Your task to perform on an android device: Do I have any events today? Image 0: 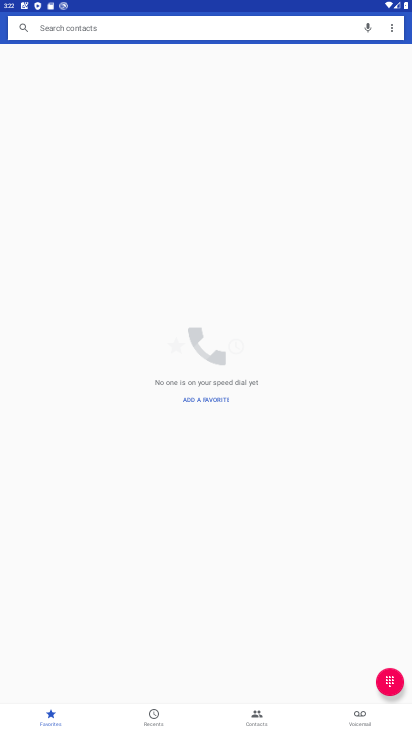
Step 0: press home button
Your task to perform on an android device: Do I have any events today? Image 1: 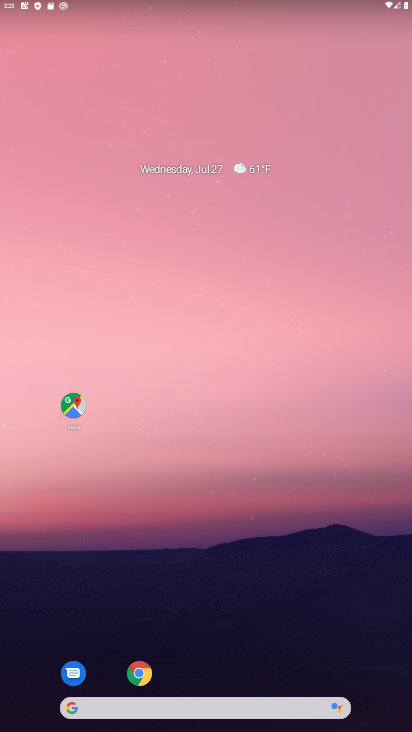
Step 1: drag from (216, 557) to (162, 110)
Your task to perform on an android device: Do I have any events today? Image 2: 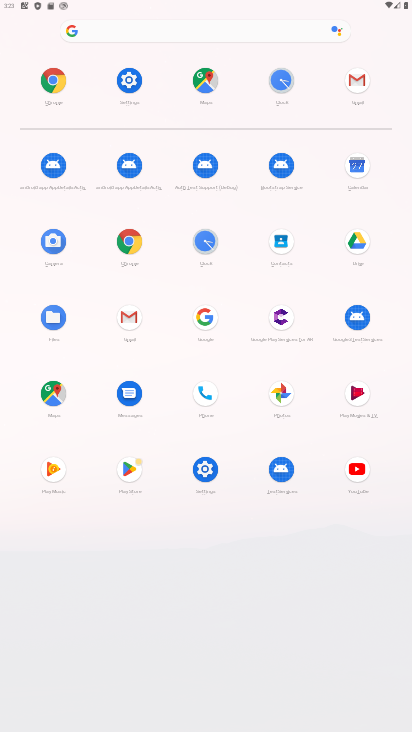
Step 2: click (352, 172)
Your task to perform on an android device: Do I have any events today? Image 3: 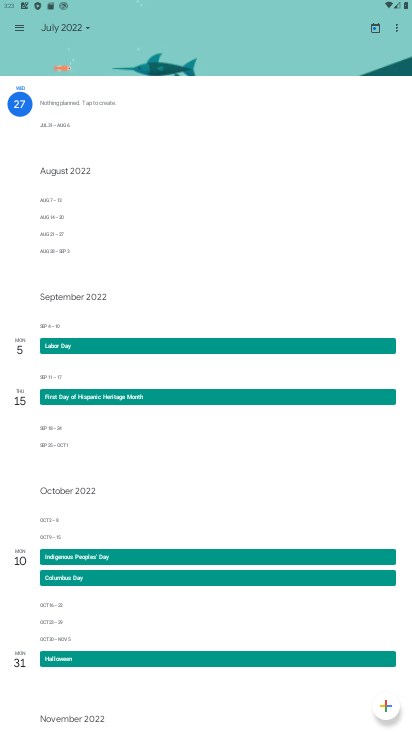
Step 3: click (13, 28)
Your task to perform on an android device: Do I have any events today? Image 4: 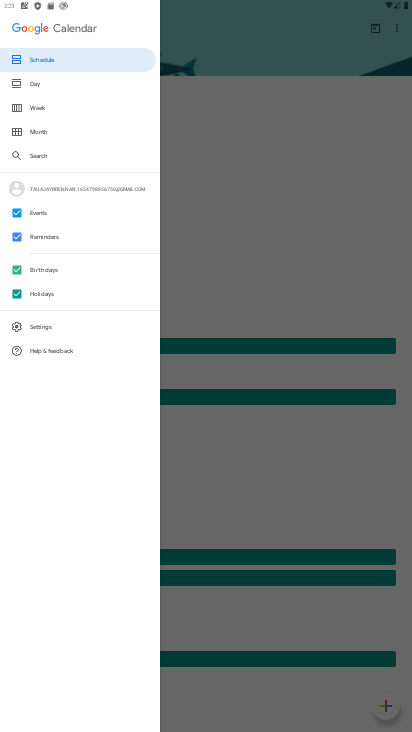
Step 4: click (28, 81)
Your task to perform on an android device: Do I have any events today? Image 5: 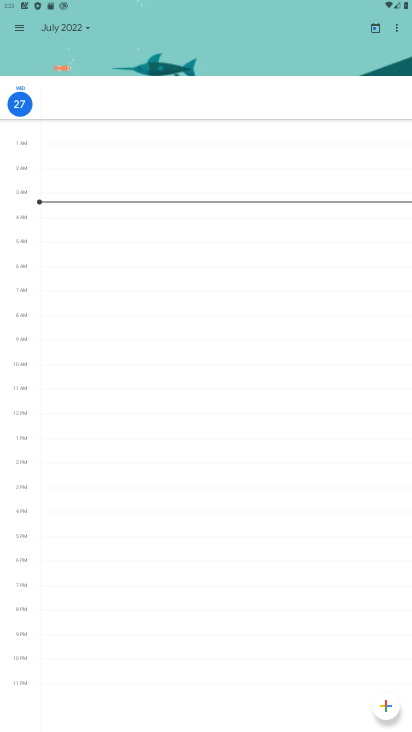
Step 5: task complete